Your task to perform on an android device: What's on my calendar today? Image 0: 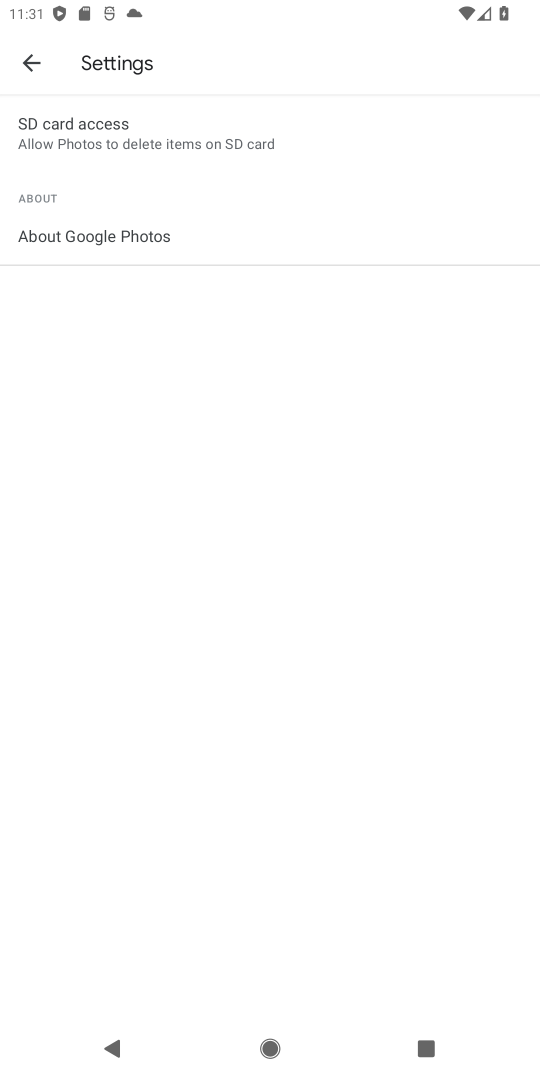
Step 0: press home button
Your task to perform on an android device: What's on my calendar today? Image 1: 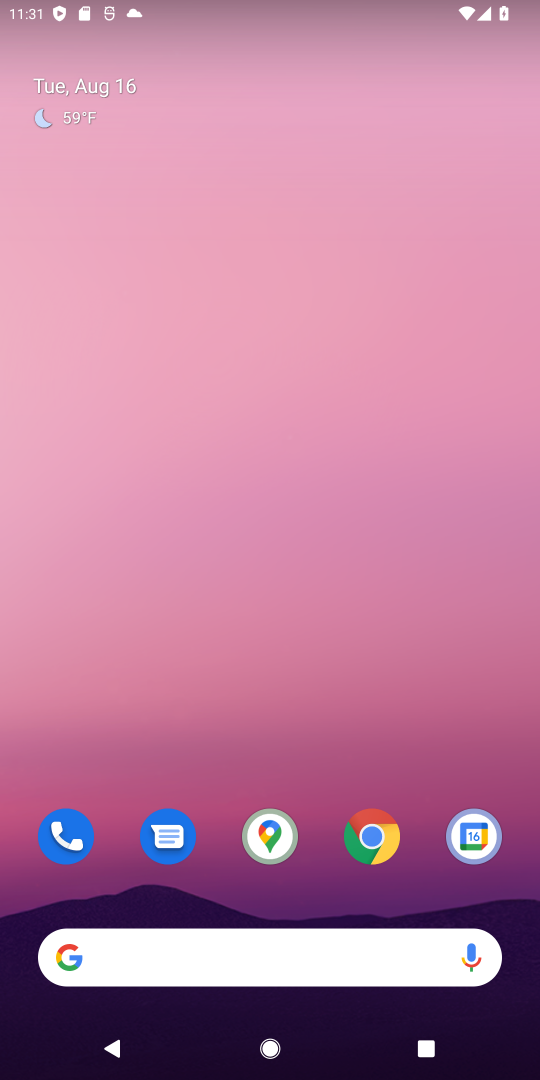
Step 1: drag from (209, 971) to (184, 354)
Your task to perform on an android device: What's on my calendar today? Image 2: 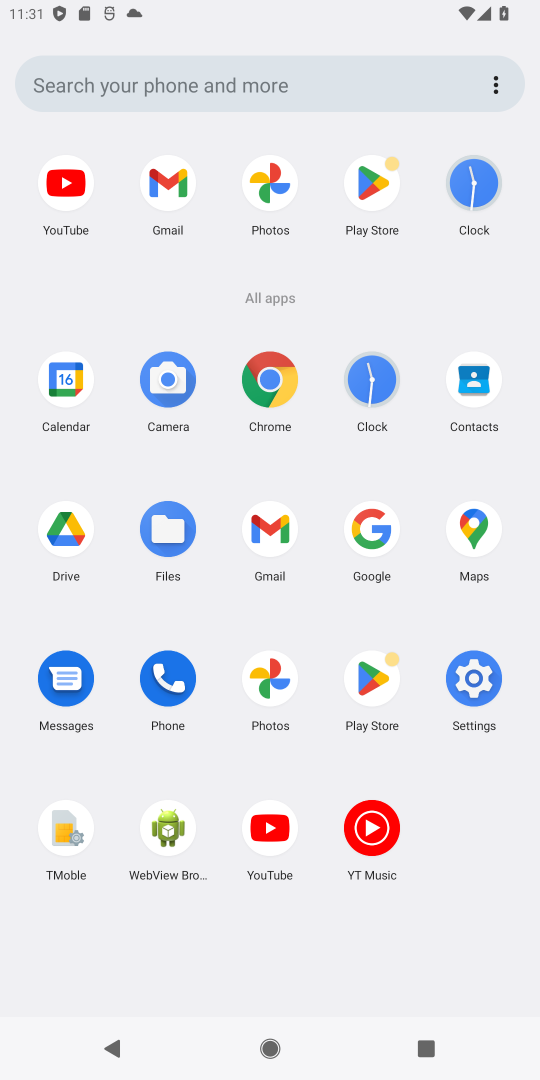
Step 2: click (65, 381)
Your task to perform on an android device: What's on my calendar today? Image 3: 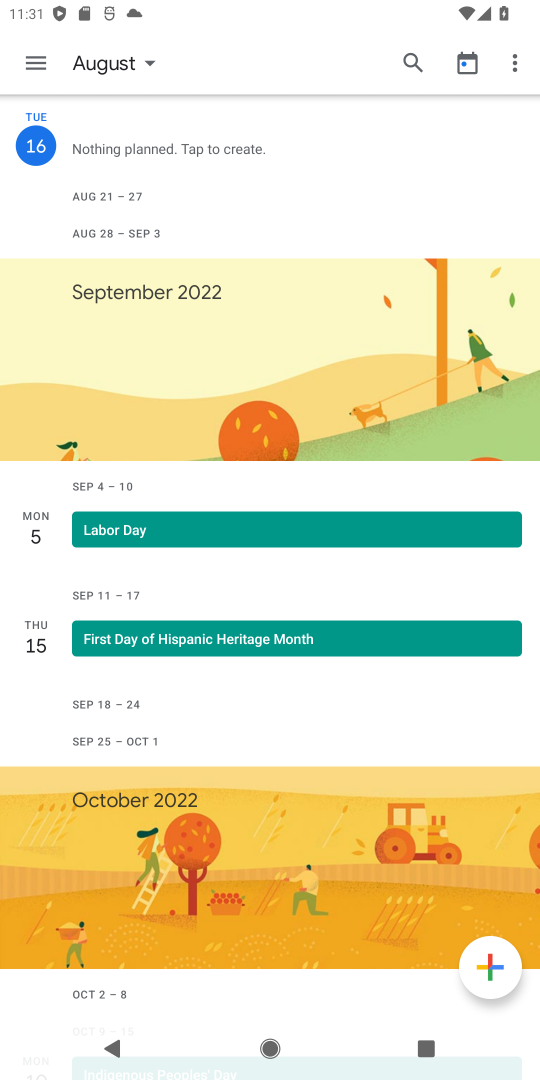
Step 3: task complete